Your task to perform on an android device: turn pop-ups on in chrome Image 0: 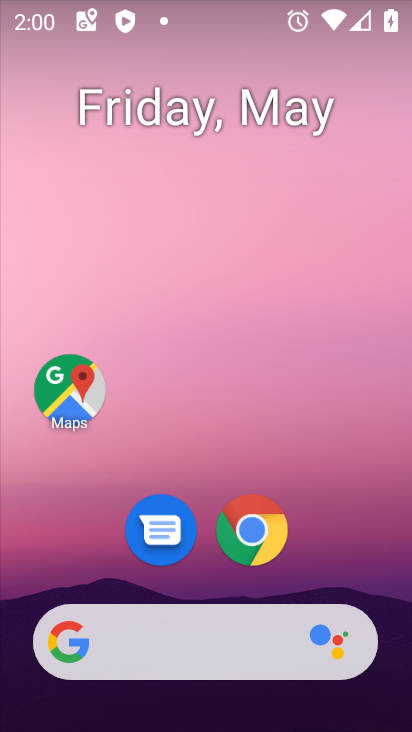
Step 0: click (246, 532)
Your task to perform on an android device: turn pop-ups on in chrome Image 1: 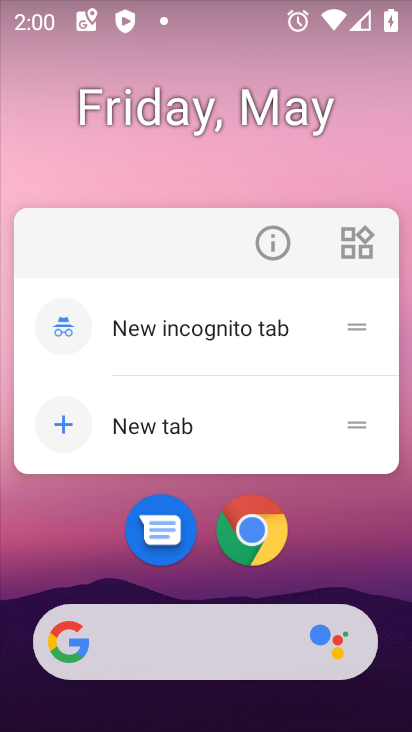
Step 1: click (258, 533)
Your task to perform on an android device: turn pop-ups on in chrome Image 2: 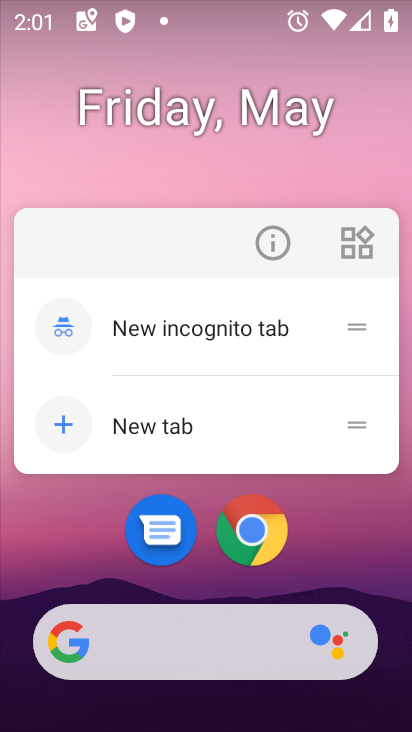
Step 2: click (257, 534)
Your task to perform on an android device: turn pop-ups on in chrome Image 3: 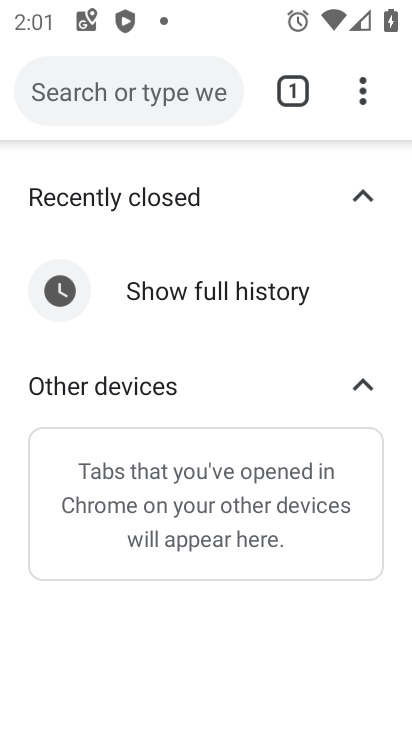
Step 3: click (347, 94)
Your task to perform on an android device: turn pop-ups on in chrome Image 4: 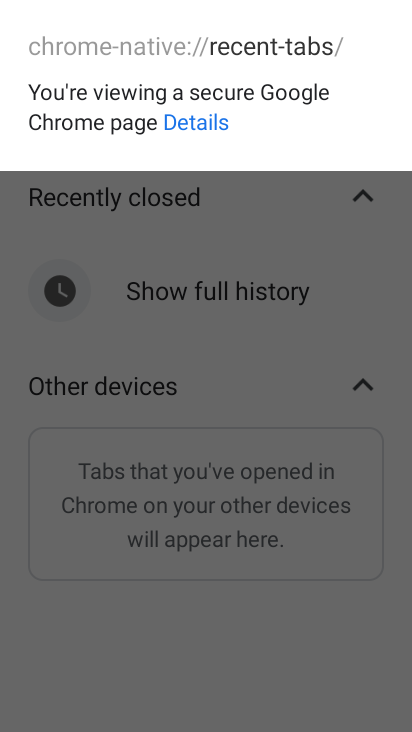
Step 4: click (326, 512)
Your task to perform on an android device: turn pop-ups on in chrome Image 5: 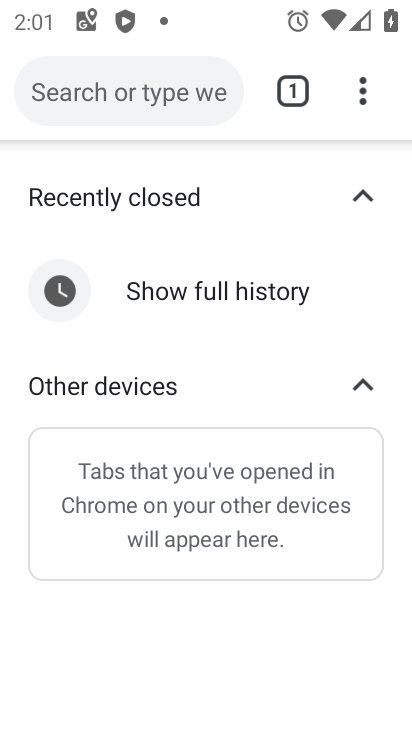
Step 5: click (357, 84)
Your task to perform on an android device: turn pop-ups on in chrome Image 6: 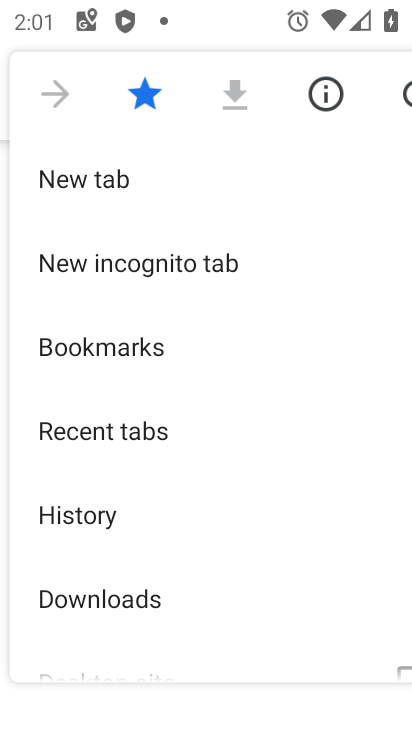
Step 6: drag from (207, 610) to (198, 247)
Your task to perform on an android device: turn pop-ups on in chrome Image 7: 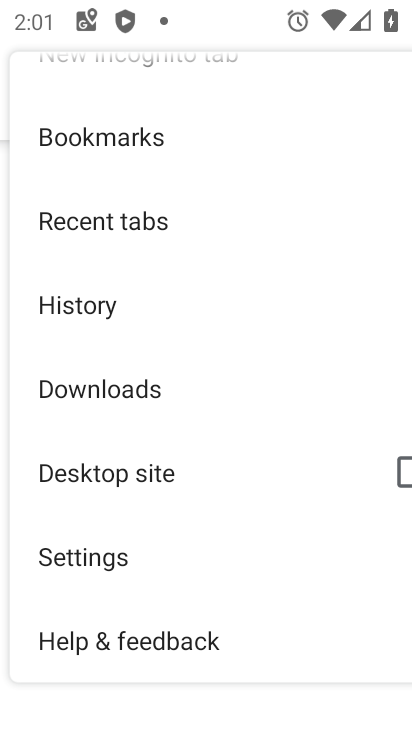
Step 7: click (132, 561)
Your task to perform on an android device: turn pop-ups on in chrome Image 8: 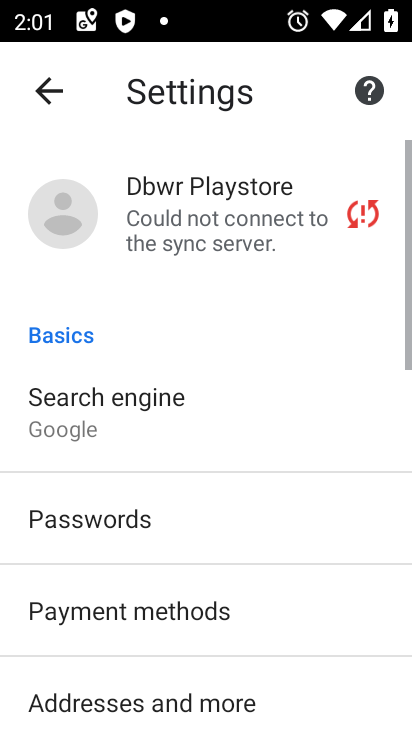
Step 8: drag from (177, 632) to (181, 234)
Your task to perform on an android device: turn pop-ups on in chrome Image 9: 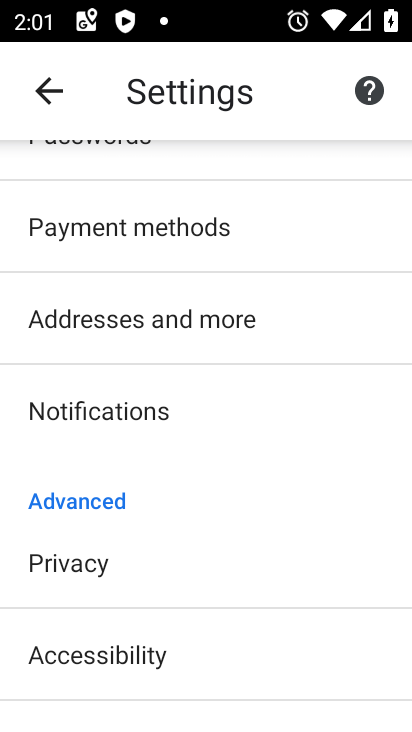
Step 9: drag from (120, 659) to (100, 245)
Your task to perform on an android device: turn pop-ups on in chrome Image 10: 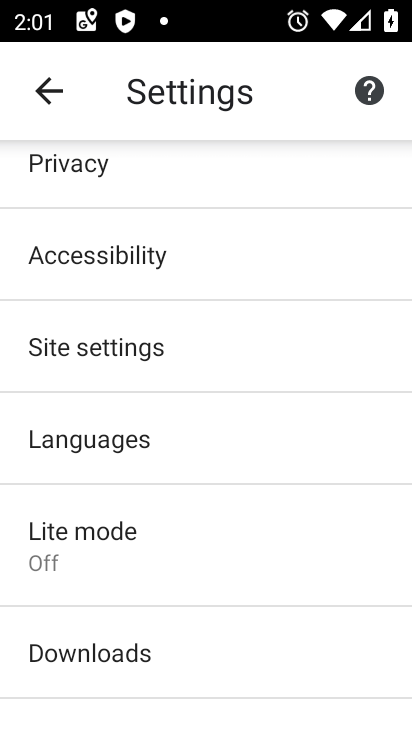
Step 10: click (149, 336)
Your task to perform on an android device: turn pop-ups on in chrome Image 11: 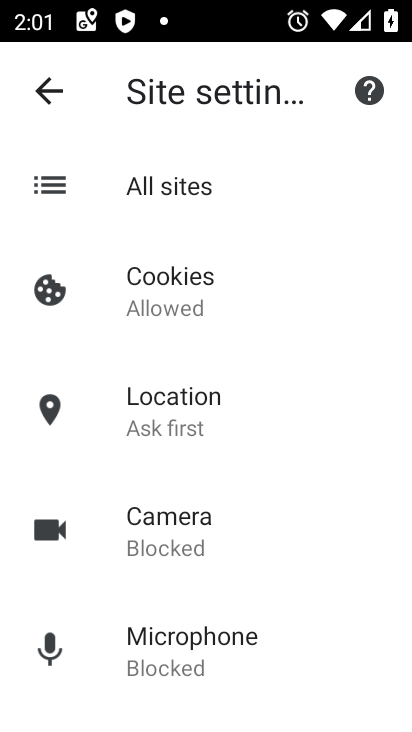
Step 11: drag from (194, 671) to (189, 253)
Your task to perform on an android device: turn pop-ups on in chrome Image 12: 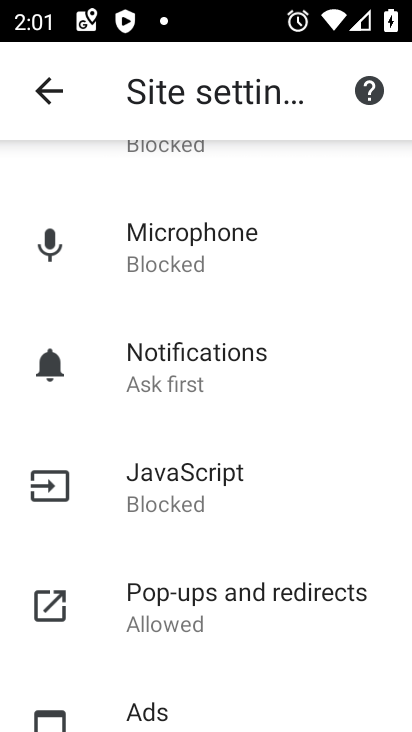
Step 12: click (152, 600)
Your task to perform on an android device: turn pop-ups on in chrome Image 13: 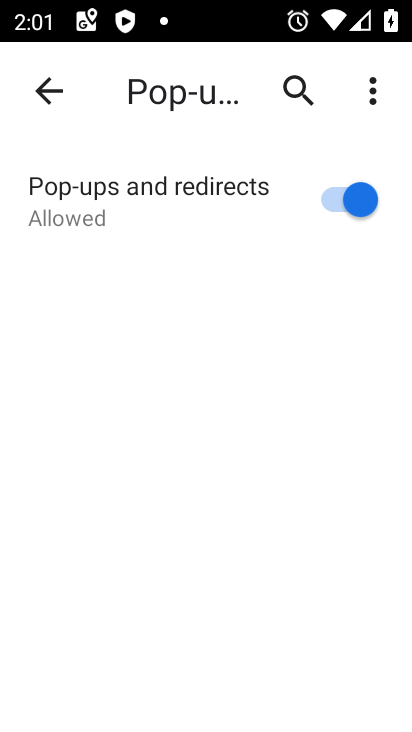
Step 13: task complete